Your task to perform on an android device: turn vacation reply on in the gmail app Image 0: 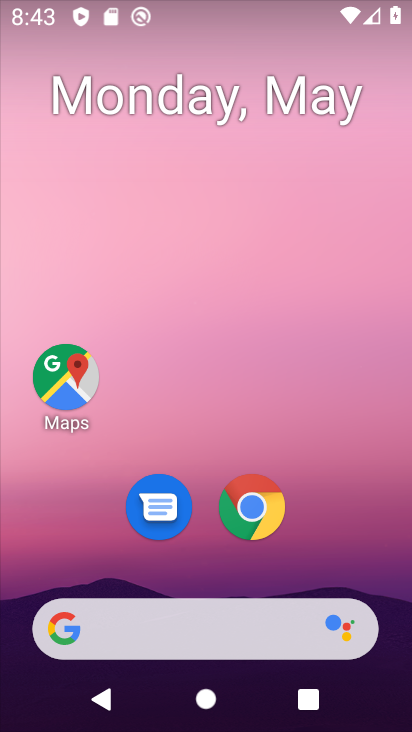
Step 0: drag from (220, 562) to (341, 1)
Your task to perform on an android device: turn vacation reply on in the gmail app Image 1: 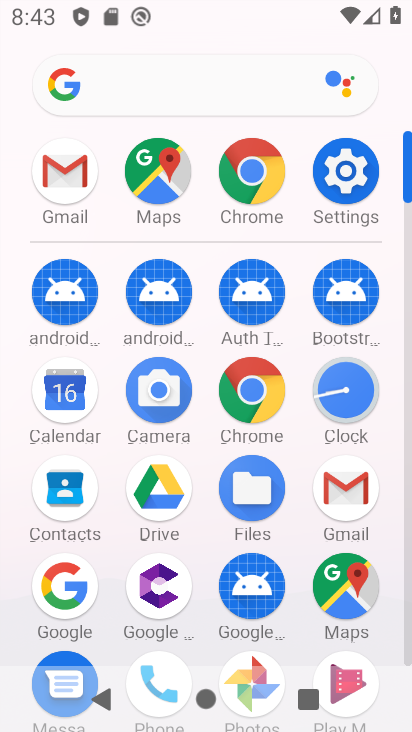
Step 1: click (351, 496)
Your task to perform on an android device: turn vacation reply on in the gmail app Image 2: 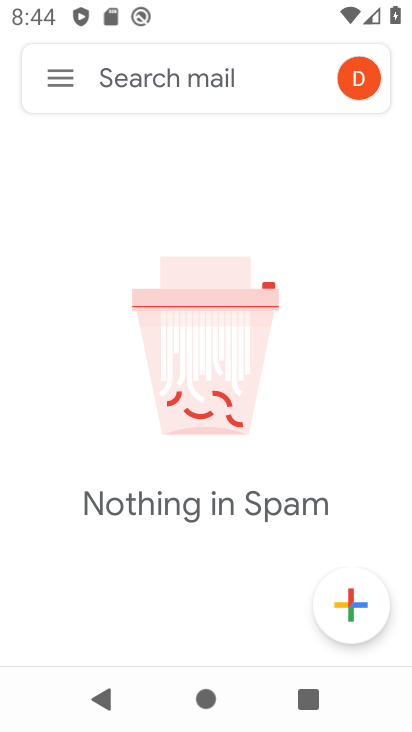
Step 2: click (67, 70)
Your task to perform on an android device: turn vacation reply on in the gmail app Image 3: 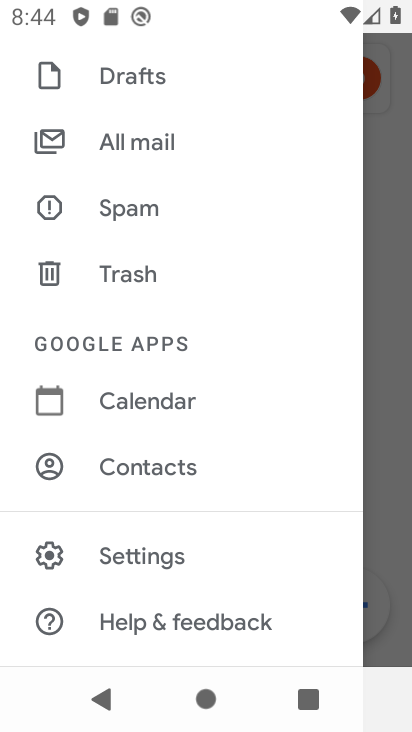
Step 3: click (125, 554)
Your task to perform on an android device: turn vacation reply on in the gmail app Image 4: 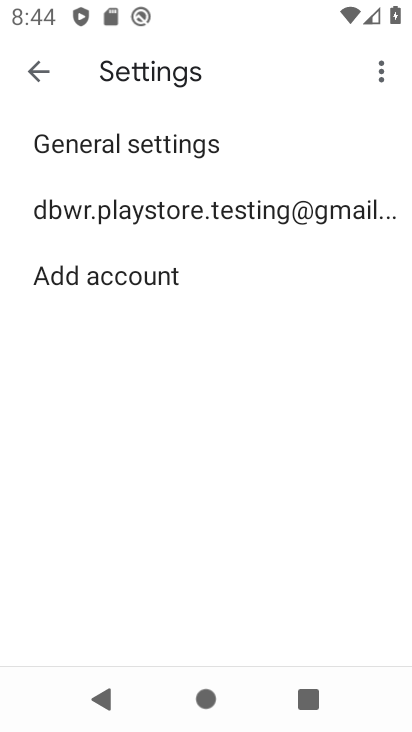
Step 4: click (142, 218)
Your task to perform on an android device: turn vacation reply on in the gmail app Image 5: 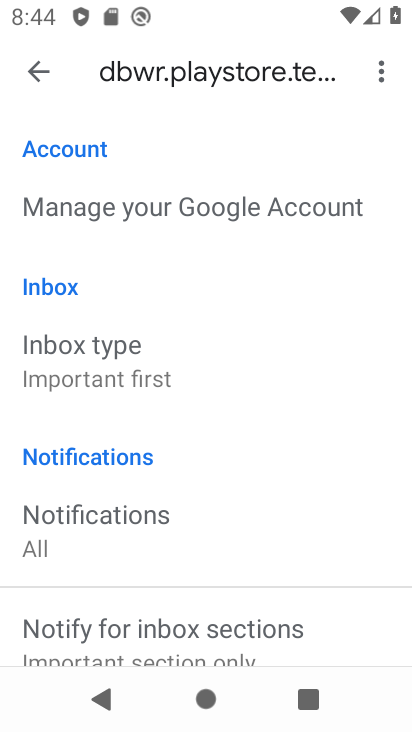
Step 5: drag from (120, 520) to (213, 62)
Your task to perform on an android device: turn vacation reply on in the gmail app Image 6: 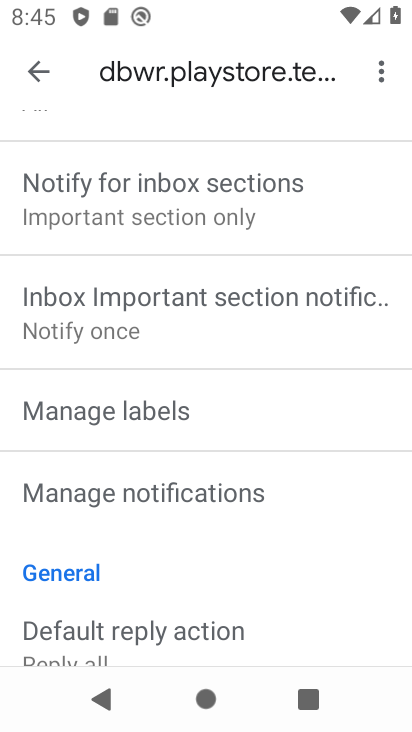
Step 6: drag from (134, 526) to (195, 201)
Your task to perform on an android device: turn vacation reply on in the gmail app Image 7: 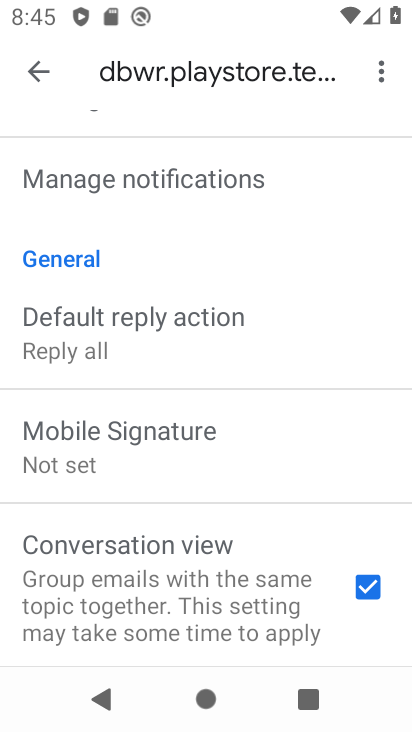
Step 7: drag from (115, 524) to (173, 227)
Your task to perform on an android device: turn vacation reply on in the gmail app Image 8: 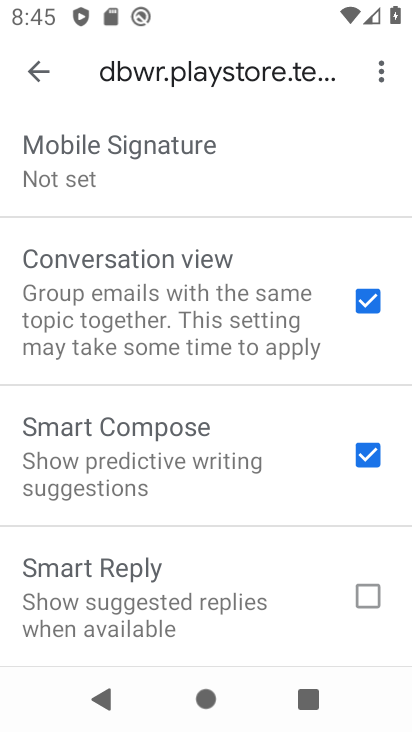
Step 8: drag from (171, 572) to (256, 150)
Your task to perform on an android device: turn vacation reply on in the gmail app Image 9: 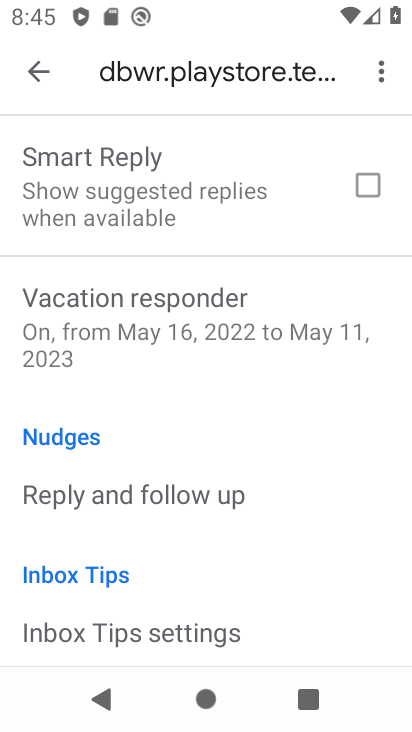
Step 9: click (181, 329)
Your task to perform on an android device: turn vacation reply on in the gmail app Image 10: 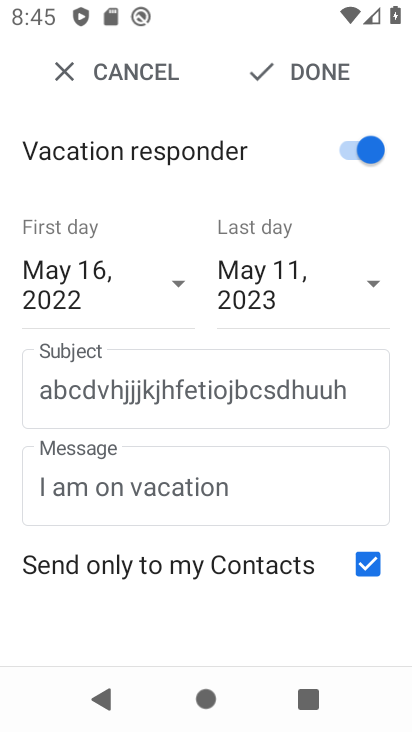
Step 10: task complete